Your task to perform on an android device: search for starred emails in the gmail app Image 0: 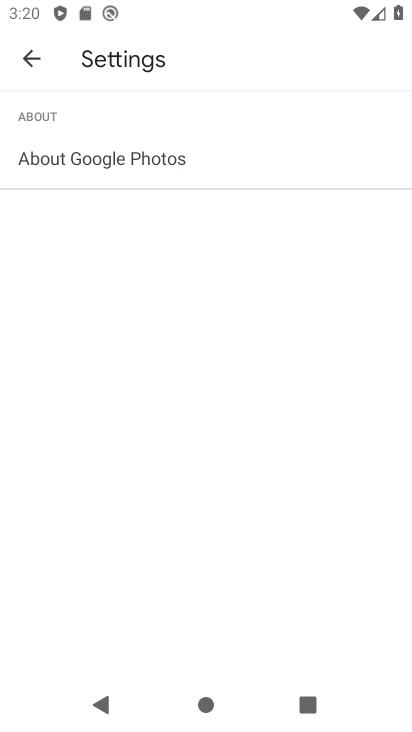
Step 0: press home button
Your task to perform on an android device: search for starred emails in the gmail app Image 1: 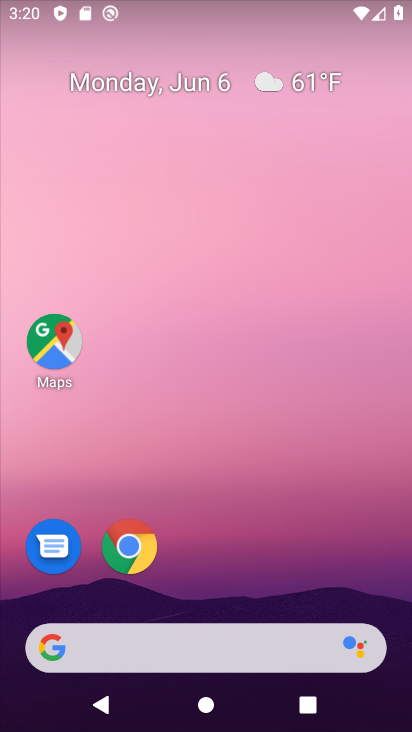
Step 1: drag from (286, 584) to (310, 121)
Your task to perform on an android device: search for starred emails in the gmail app Image 2: 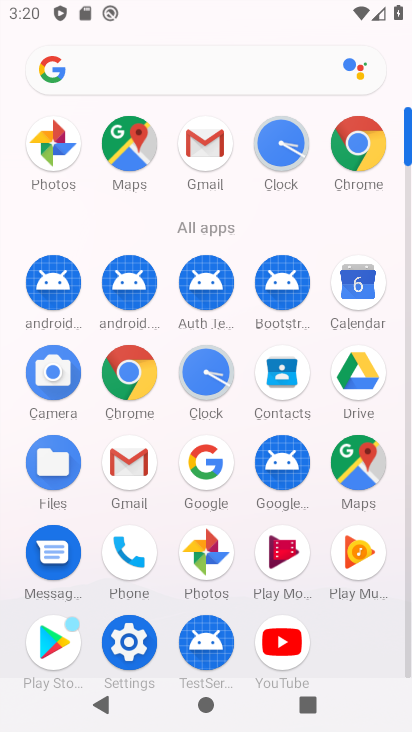
Step 2: click (213, 150)
Your task to perform on an android device: search for starred emails in the gmail app Image 3: 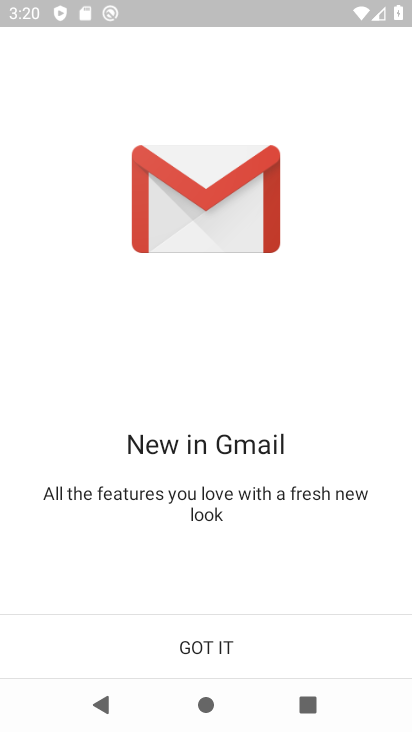
Step 3: click (190, 644)
Your task to perform on an android device: search for starred emails in the gmail app Image 4: 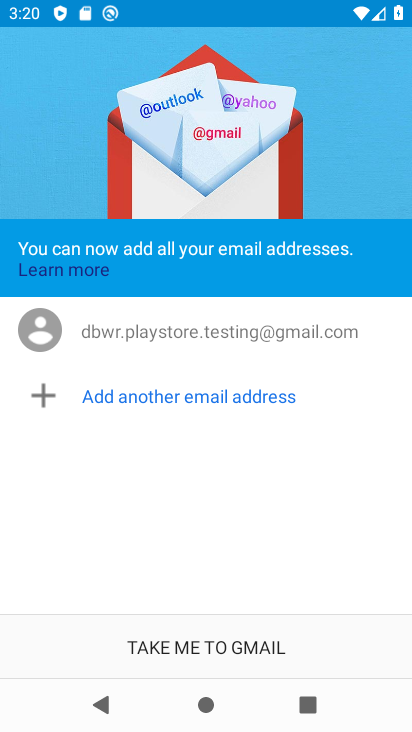
Step 4: click (188, 645)
Your task to perform on an android device: search for starred emails in the gmail app Image 5: 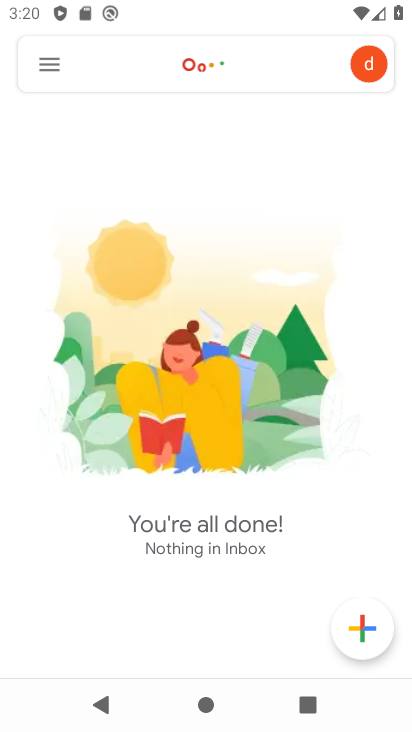
Step 5: click (51, 62)
Your task to perform on an android device: search for starred emails in the gmail app Image 6: 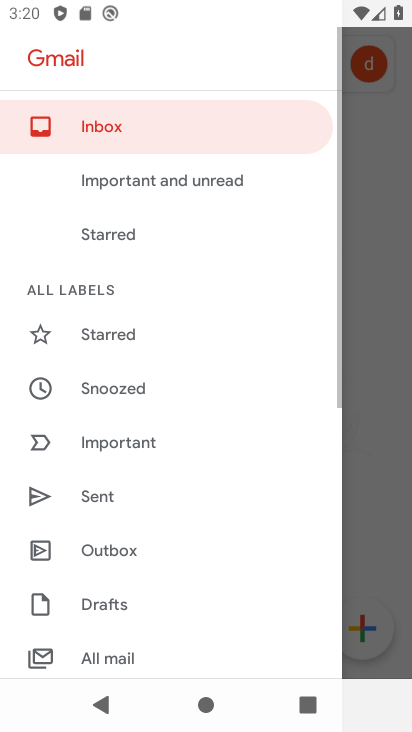
Step 6: click (119, 226)
Your task to perform on an android device: search for starred emails in the gmail app Image 7: 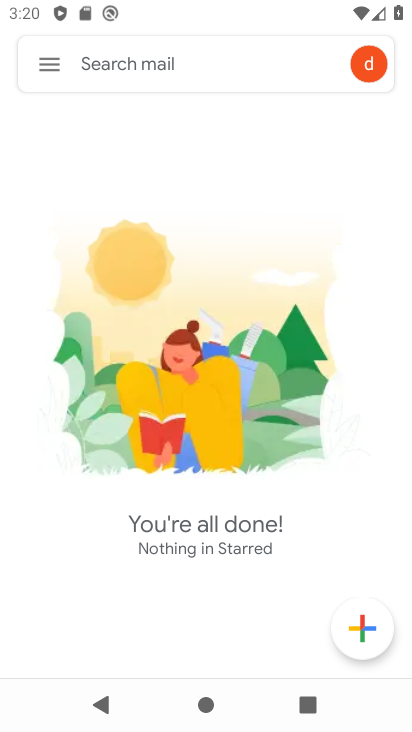
Step 7: task complete